Your task to perform on an android device: toggle notifications settings in the gmail app Image 0: 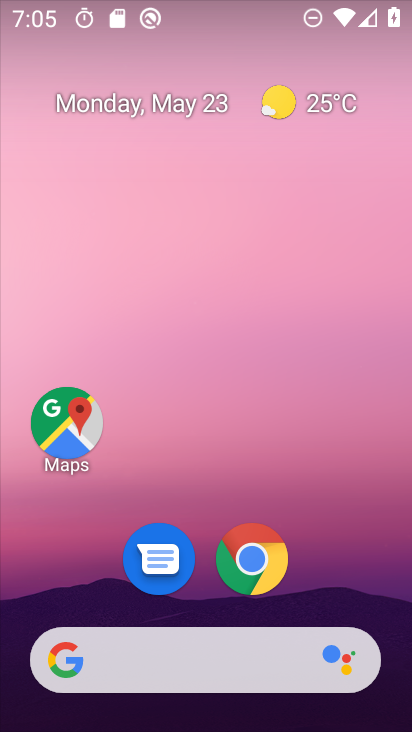
Step 0: drag from (394, 642) to (247, 81)
Your task to perform on an android device: toggle notifications settings in the gmail app Image 1: 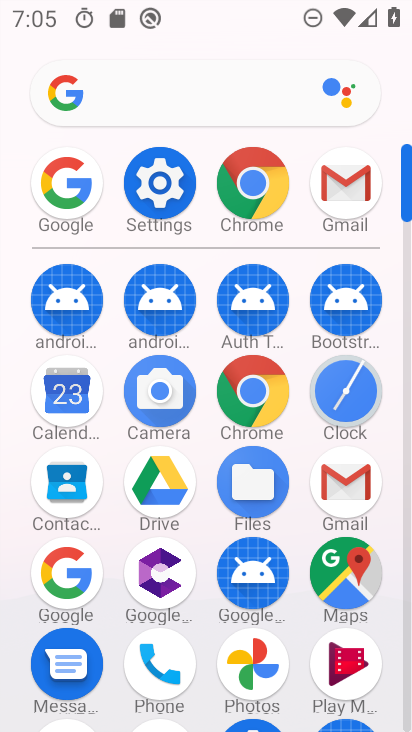
Step 1: click (335, 476)
Your task to perform on an android device: toggle notifications settings in the gmail app Image 2: 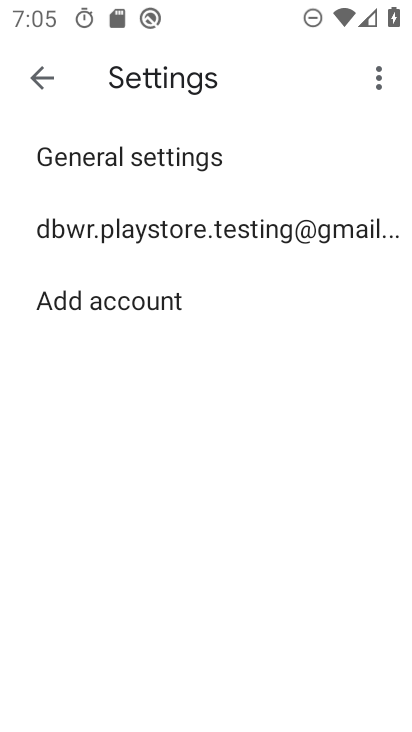
Step 2: click (180, 237)
Your task to perform on an android device: toggle notifications settings in the gmail app Image 3: 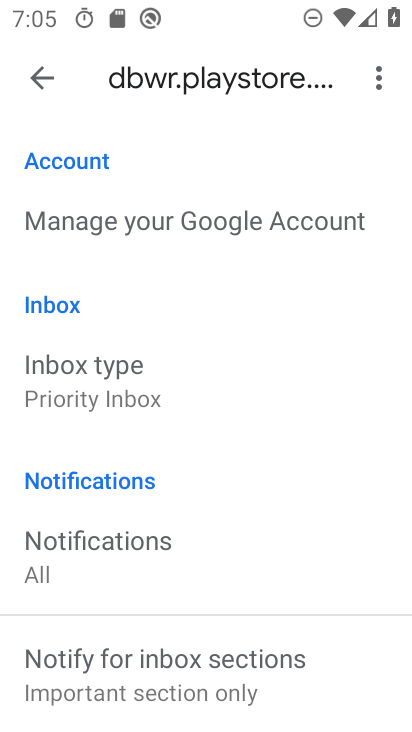
Step 3: click (119, 563)
Your task to perform on an android device: toggle notifications settings in the gmail app Image 4: 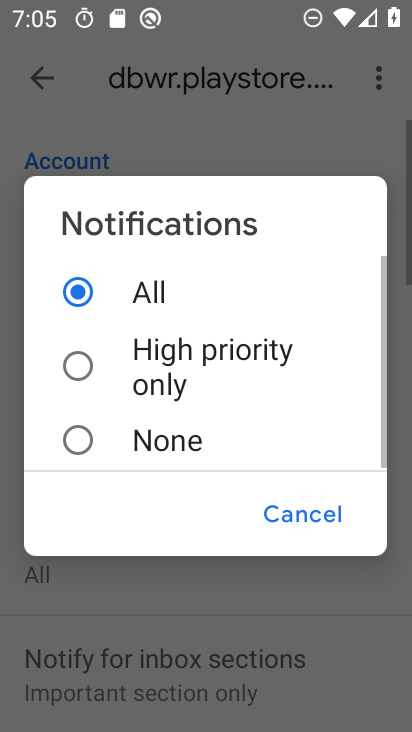
Step 4: click (87, 444)
Your task to perform on an android device: toggle notifications settings in the gmail app Image 5: 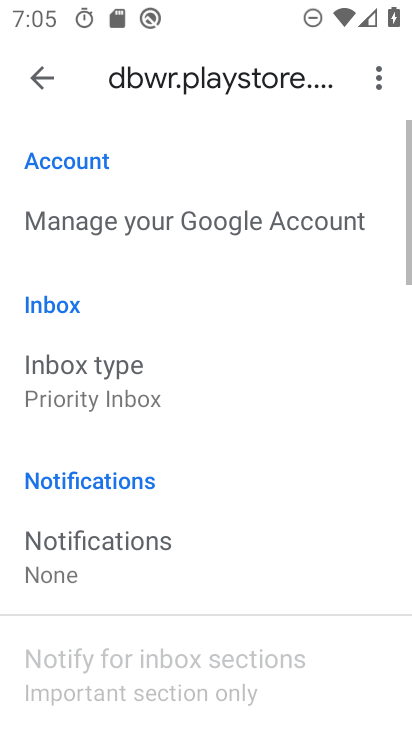
Step 5: task complete